Your task to perform on an android device: Go to wifi settings Image 0: 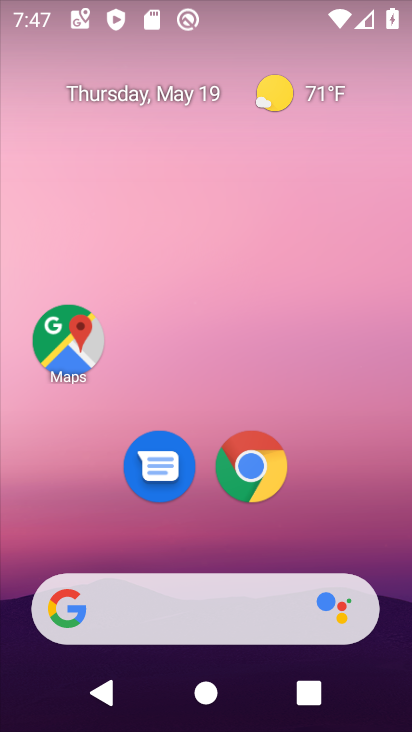
Step 0: drag from (305, 514) to (310, 2)
Your task to perform on an android device: Go to wifi settings Image 1: 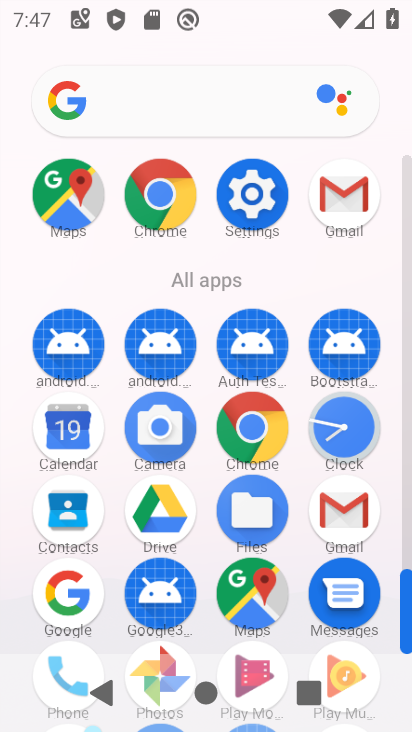
Step 1: drag from (10, 369) to (20, 198)
Your task to perform on an android device: Go to wifi settings Image 2: 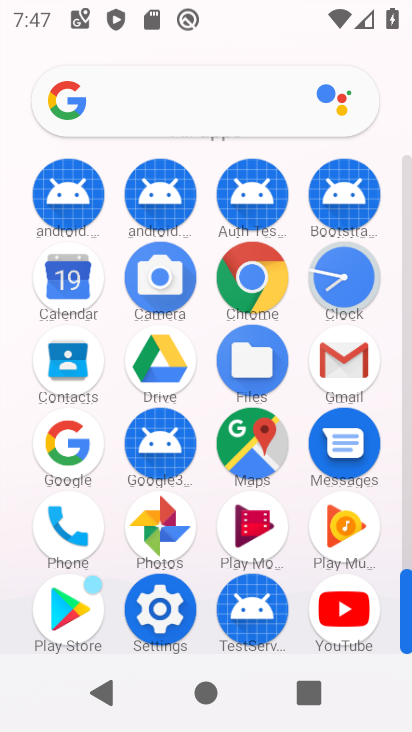
Step 2: click (165, 600)
Your task to perform on an android device: Go to wifi settings Image 3: 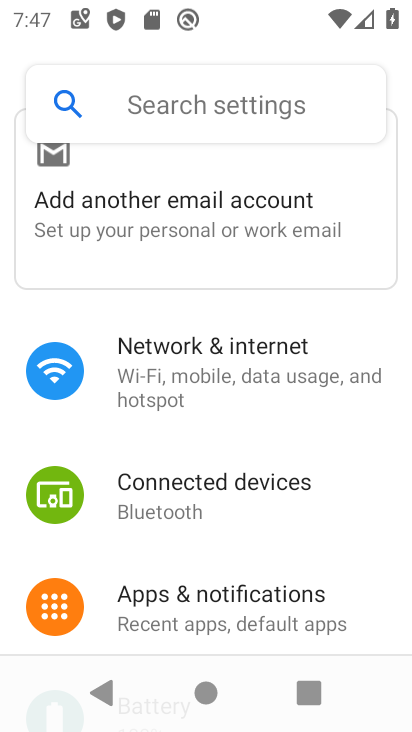
Step 3: click (236, 370)
Your task to perform on an android device: Go to wifi settings Image 4: 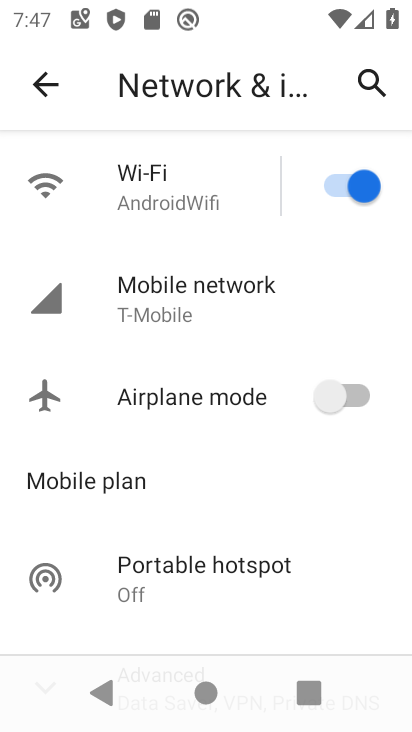
Step 4: click (166, 188)
Your task to perform on an android device: Go to wifi settings Image 5: 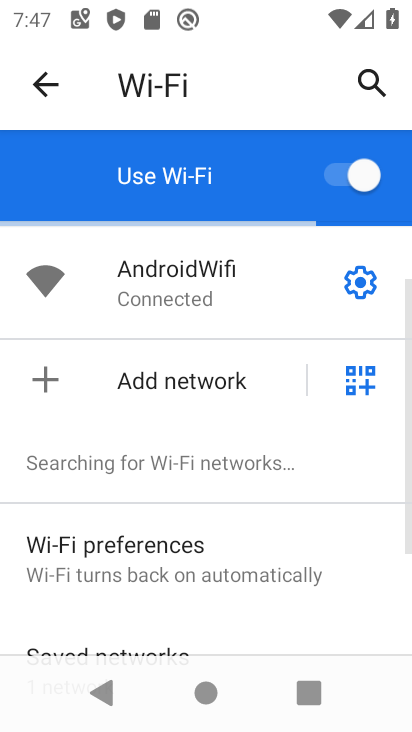
Step 5: task complete